Your task to perform on an android device: see sites visited before in the chrome app Image 0: 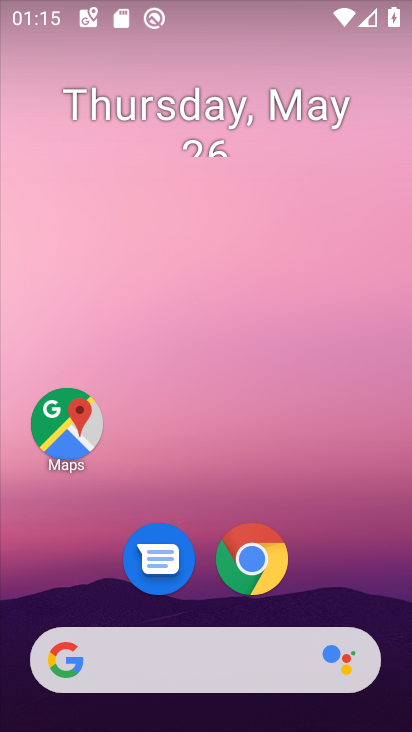
Step 0: click (255, 566)
Your task to perform on an android device: see sites visited before in the chrome app Image 1: 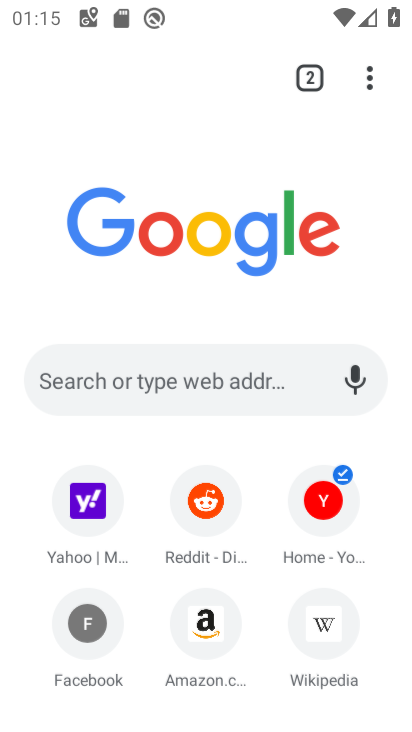
Step 1: click (368, 69)
Your task to perform on an android device: see sites visited before in the chrome app Image 2: 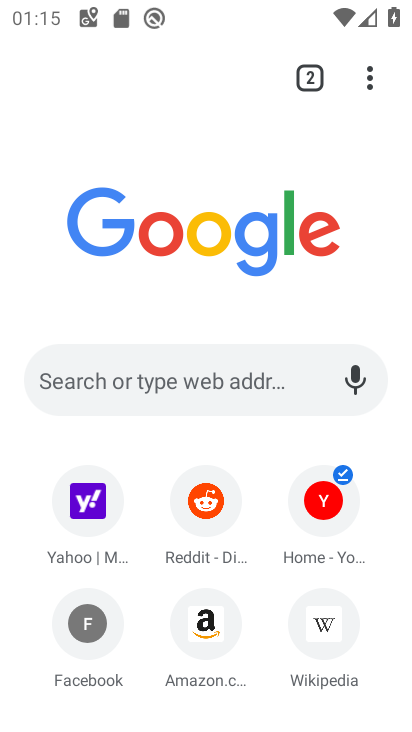
Step 2: click (366, 76)
Your task to perform on an android device: see sites visited before in the chrome app Image 3: 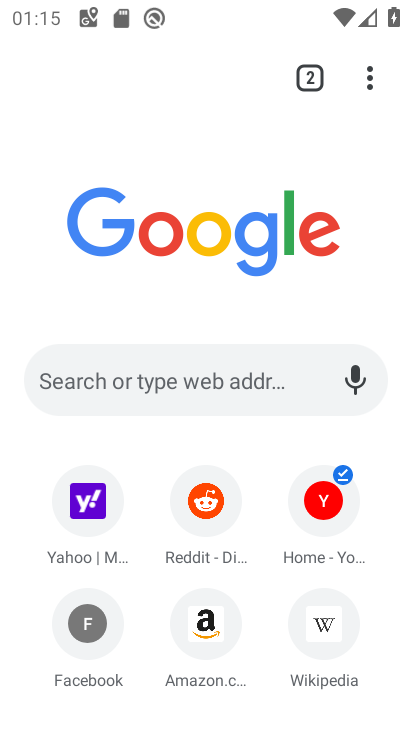
Step 3: task complete